Your task to perform on an android device: change timer sound Image 0: 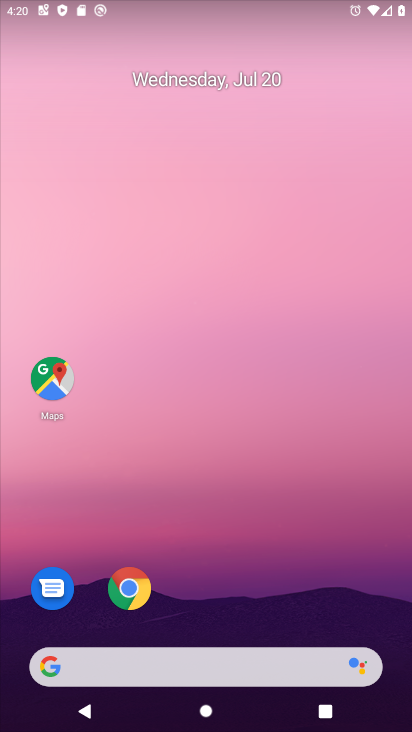
Step 0: drag from (311, 583) to (326, 52)
Your task to perform on an android device: change timer sound Image 1: 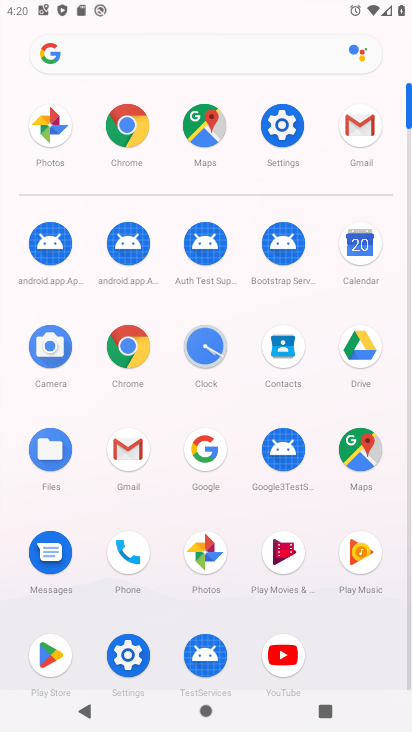
Step 1: click (284, 132)
Your task to perform on an android device: change timer sound Image 2: 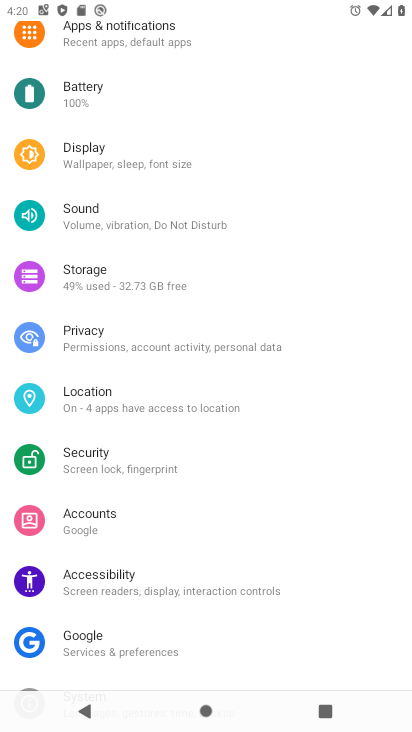
Step 2: press home button
Your task to perform on an android device: change timer sound Image 3: 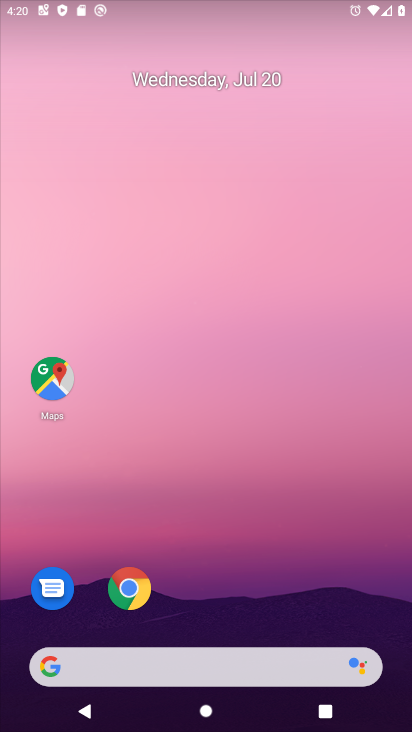
Step 3: drag from (209, 538) to (238, 60)
Your task to perform on an android device: change timer sound Image 4: 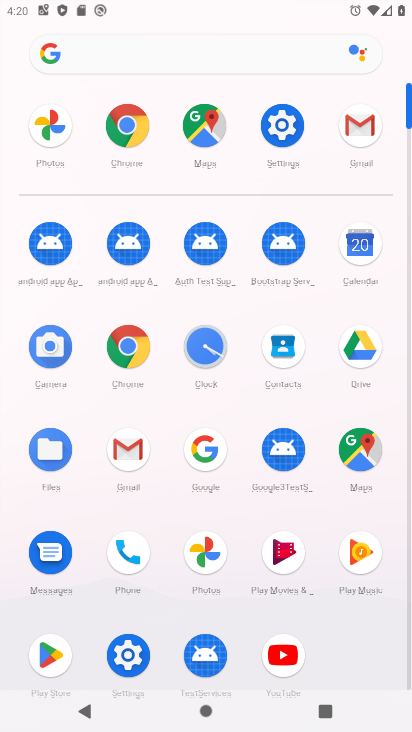
Step 4: click (208, 352)
Your task to perform on an android device: change timer sound Image 5: 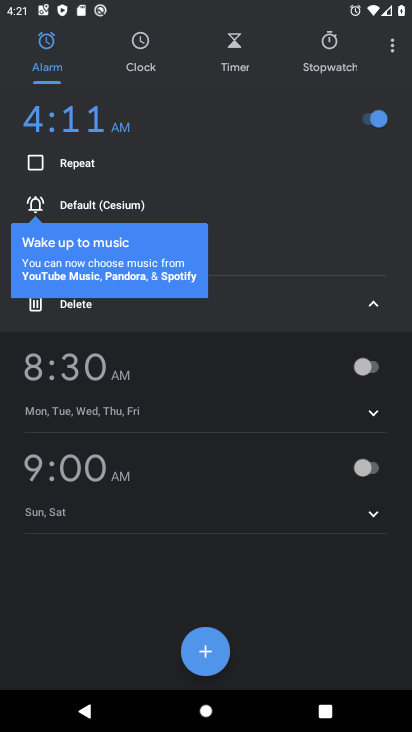
Step 5: click (392, 50)
Your task to perform on an android device: change timer sound Image 6: 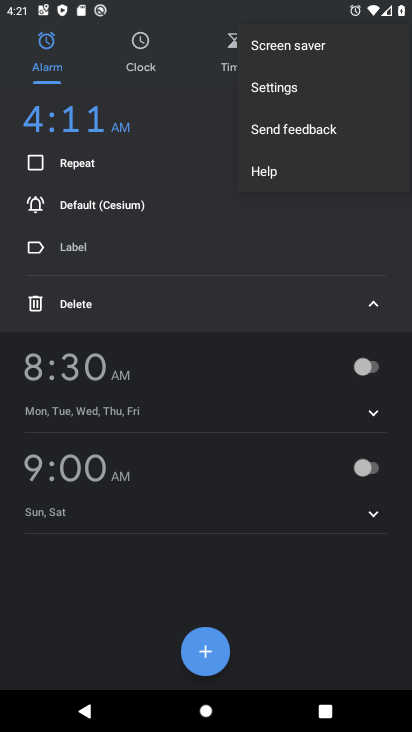
Step 6: click (274, 92)
Your task to perform on an android device: change timer sound Image 7: 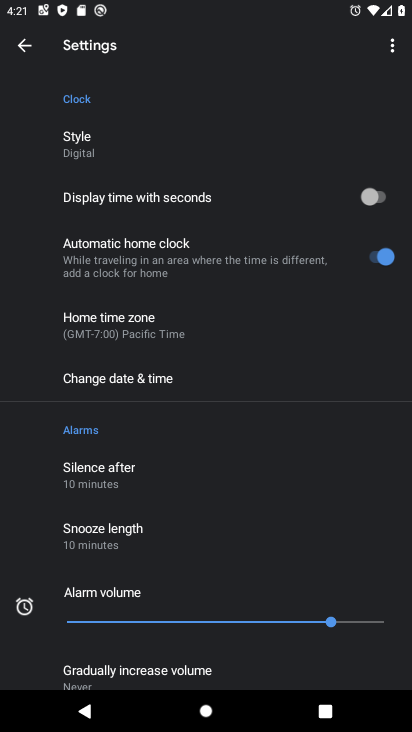
Step 7: drag from (164, 557) to (258, 259)
Your task to perform on an android device: change timer sound Image 8: 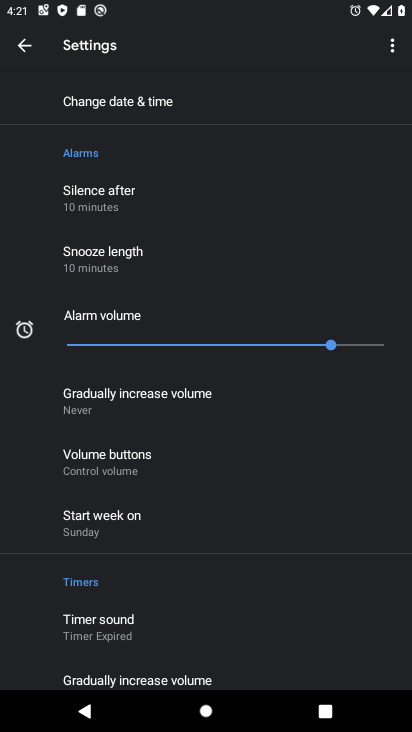
Step 8: click (115, 622)
Your task to perform on an android device: change timer sound Image 9: 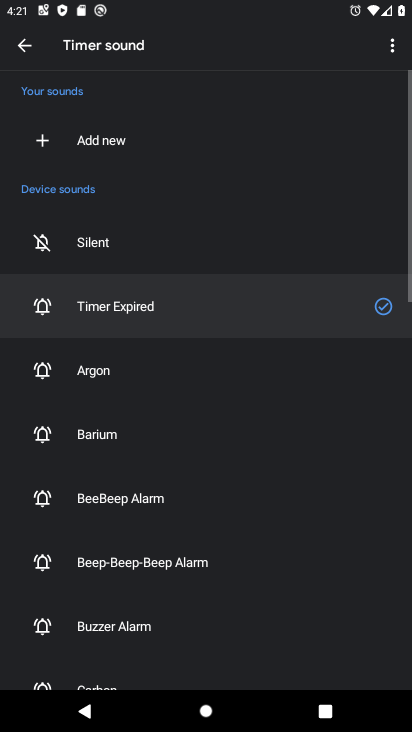
Step 9: click (115, 364)
Your task to perform on an android device: change timer sound Image 10: 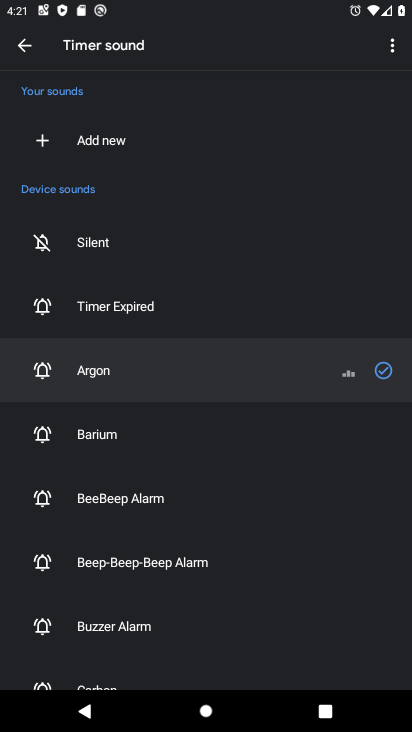
Step 10: click (120, 438)
Your task to perform on an android device: change timer sound Image 11: 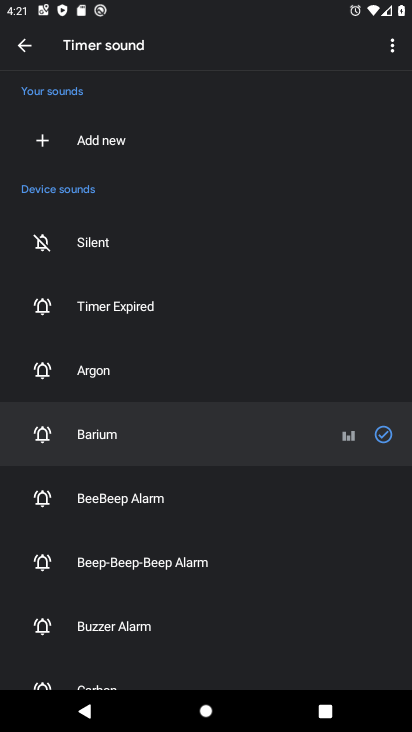
Step 11: task complete